Your task to perform on an android device: Go to sound settings Image 0: 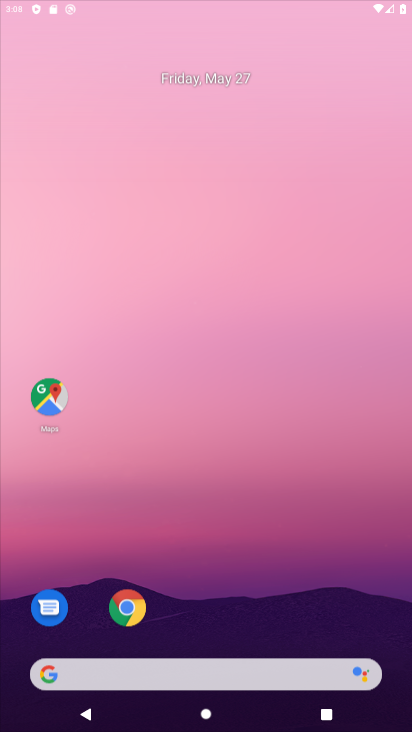
Step 0: drag from (158, 647) to (194, 217)
Your task to perform on an android device: Go to sound settings Image 1: 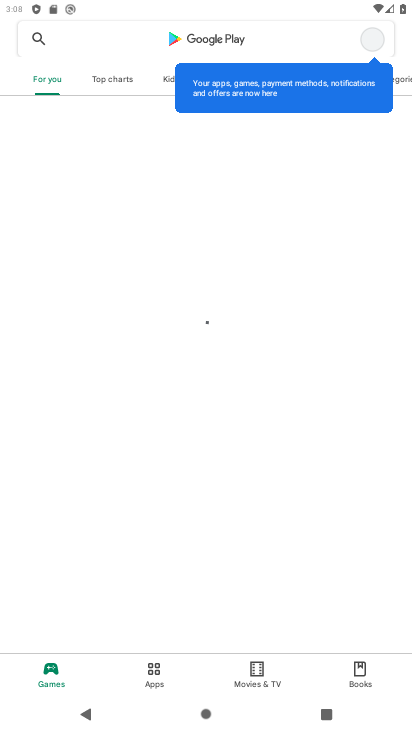
Step 1: press home button
Your task to perform on an android device: Go to sound settings Image 2: 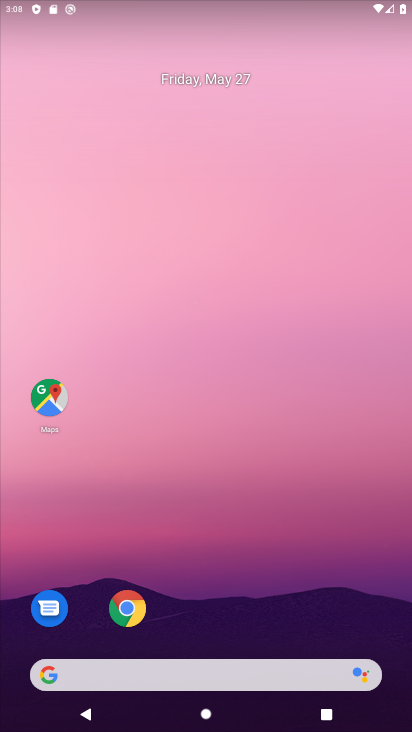
Step 2: drag from (212, 587) to (231, 259)
Your task to perform on an android device: Go to sound settings Image 3: 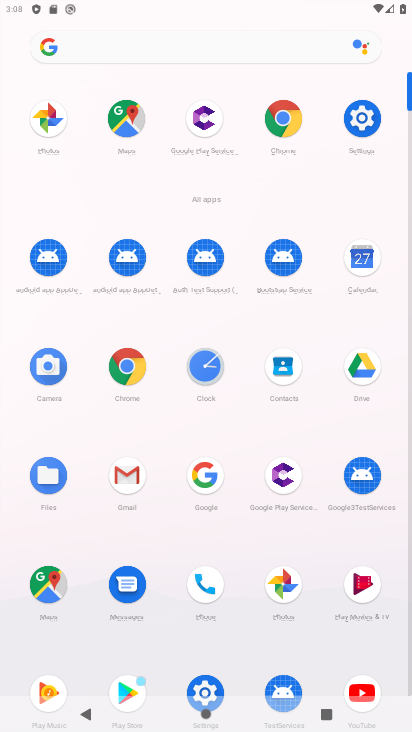
Step 3: click (368, 122)
Your task to perform on an android device: Go to sound settings Image 4: 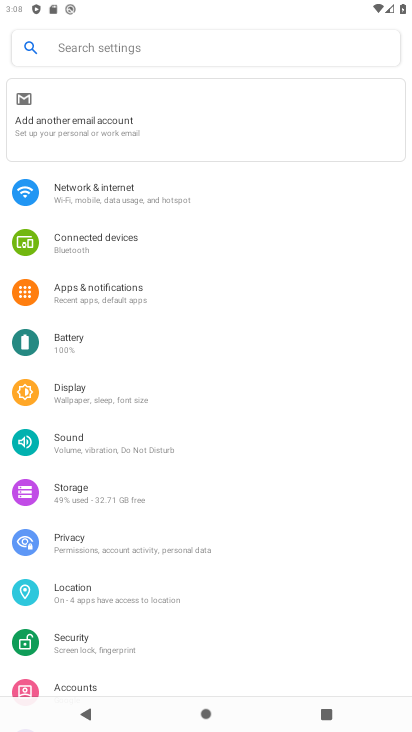
Step 4: click (74, 446)
Your task to perform on an android device: Go to sound settings Image 5: 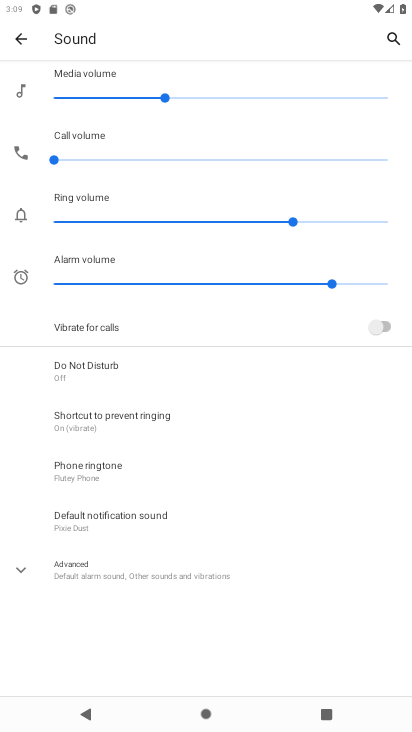
Step 5: click (90, 574)
Your task to perform on an android device: Go to sound settings Image 6: 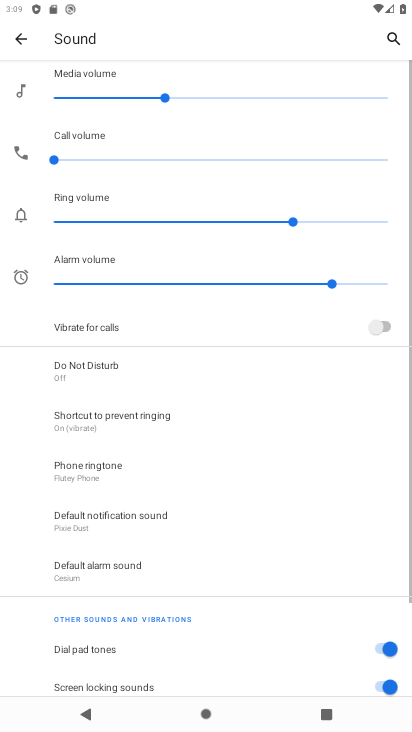
Step 6: task complete